Your task to perform on an android device: Do I have any events tomorrow? Image 0: 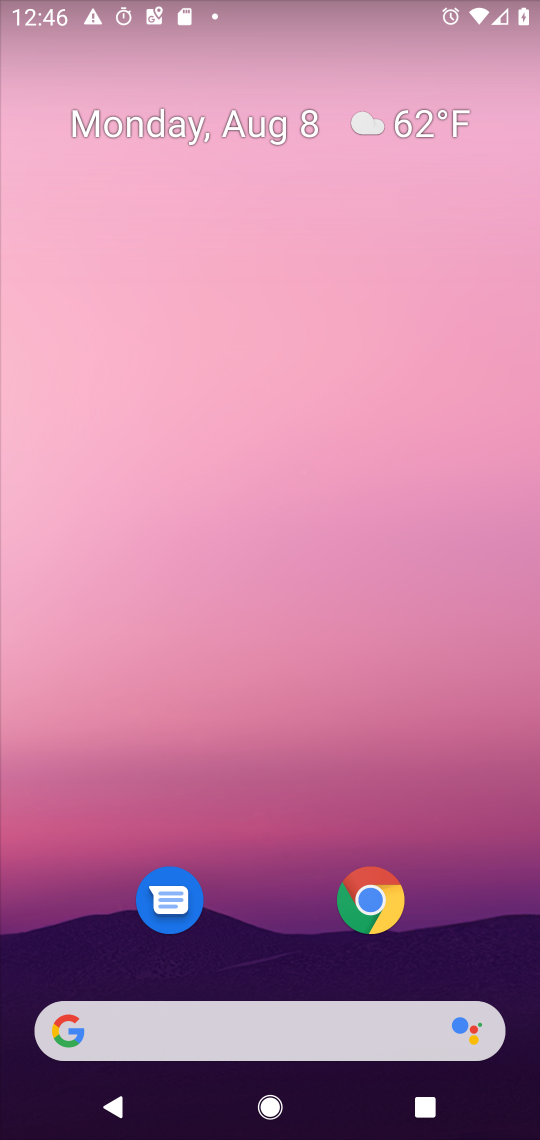
Step 0: press home button
Your task to perform on an android device: Do I have any events tomorrow? Image 1: 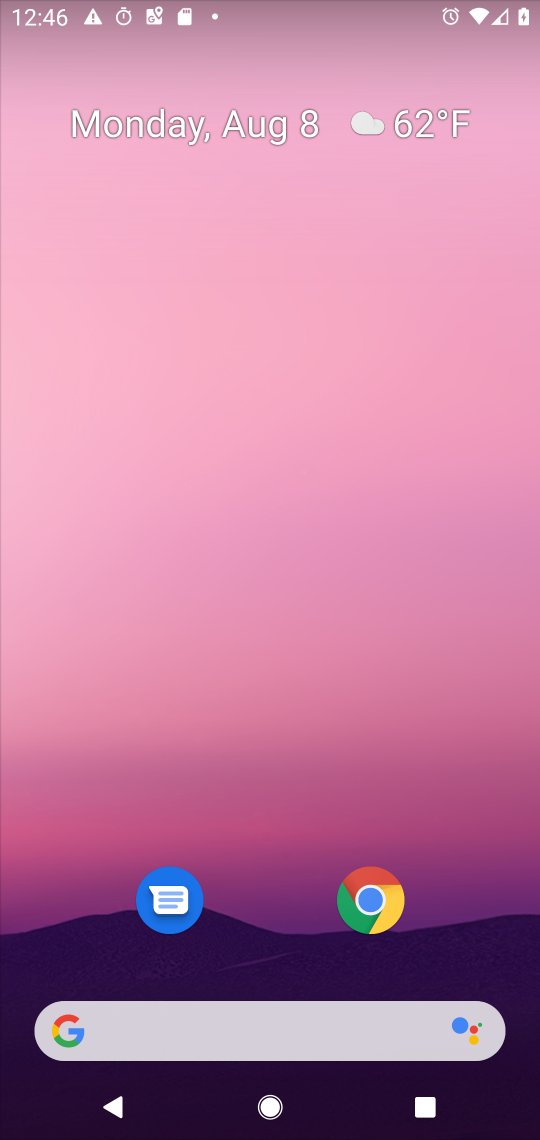
Step 1: drag from (275, 966) to (333, 96)
Your task to perform on an android device: Do I have any events tomorrow? Image 2: 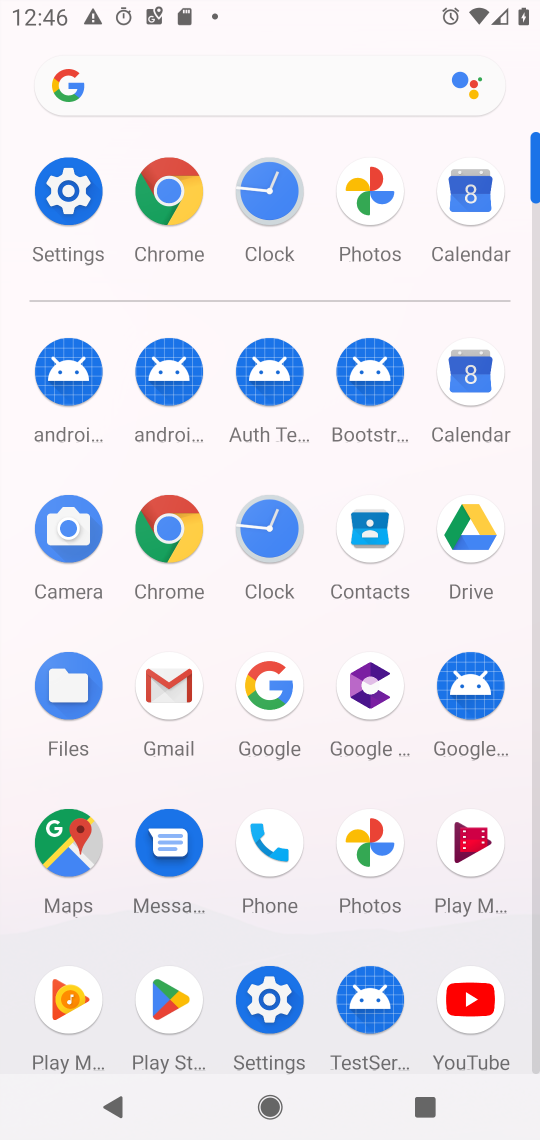
Step 2: click (468, 362)
Your task to perform on an android device: Do I have any events tomorrow? Image 3: 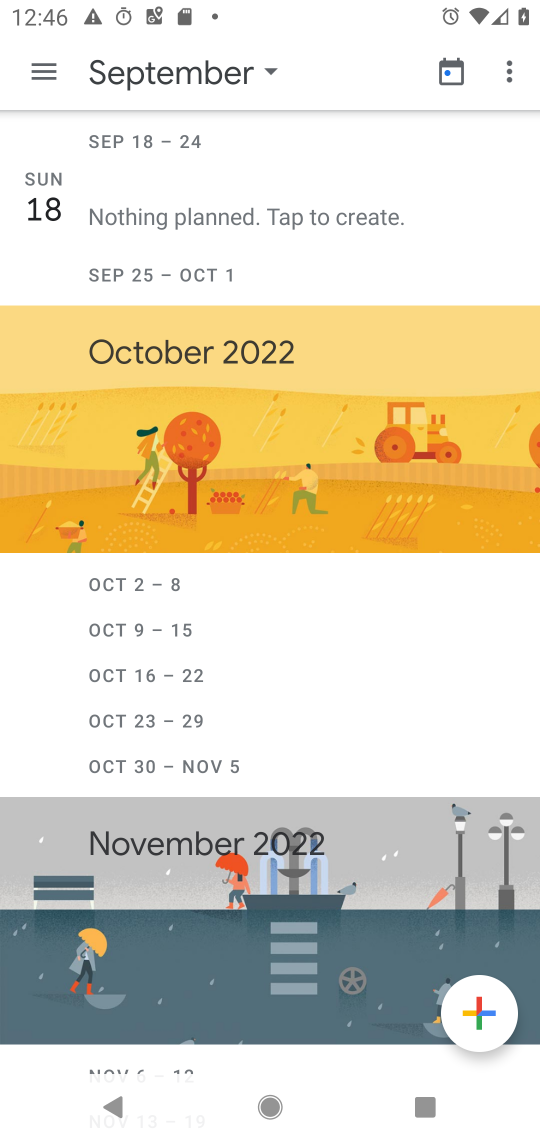
Step 3: click (259, 63)
Your task to perform on an android device: Do I have any events tomorrow? Image 4: 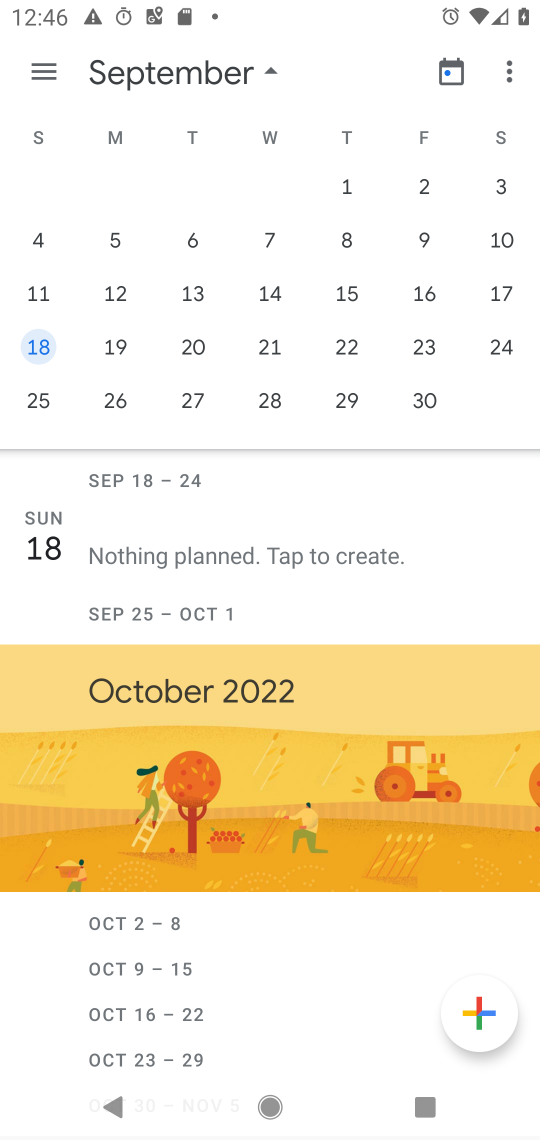
Step 4: drag from (48, 286) to (507, 281)
Your task to perform on an android device: Do I have any events tomorrow? Image 5: 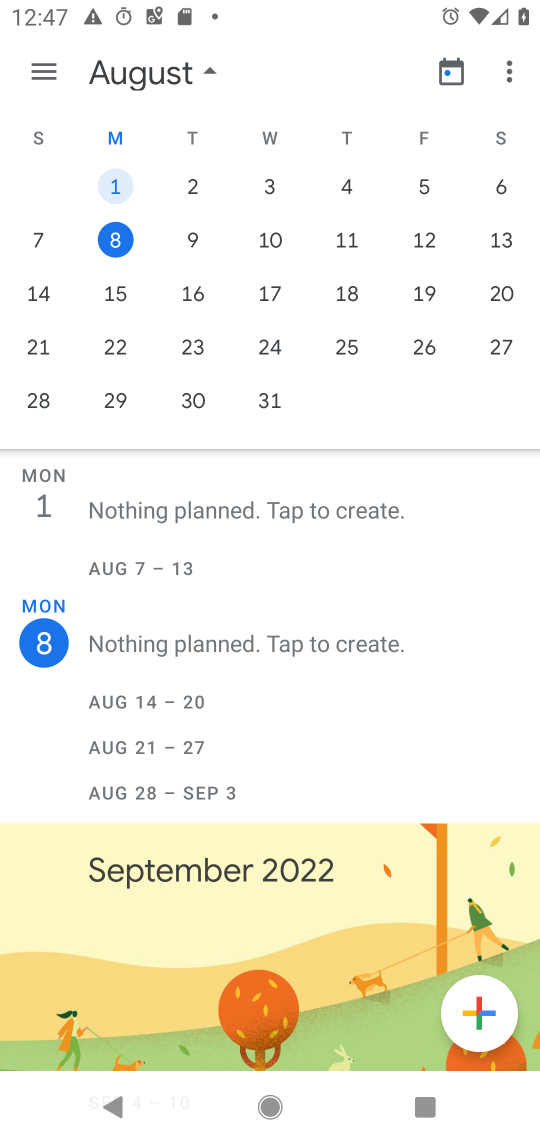
Step 5: click (34, 61)
Your task to perform on an android device: Do I have any events tomorrow? Image 6: 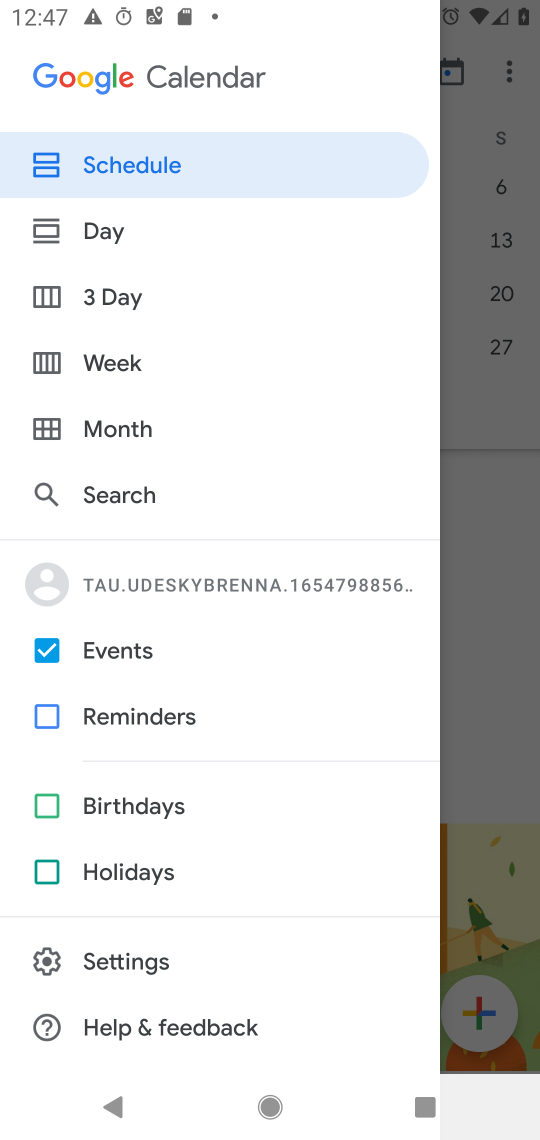
Step 6: click (99, 168)
Your task to perform on an android device: Do I have any events tomorrow? Image 7: 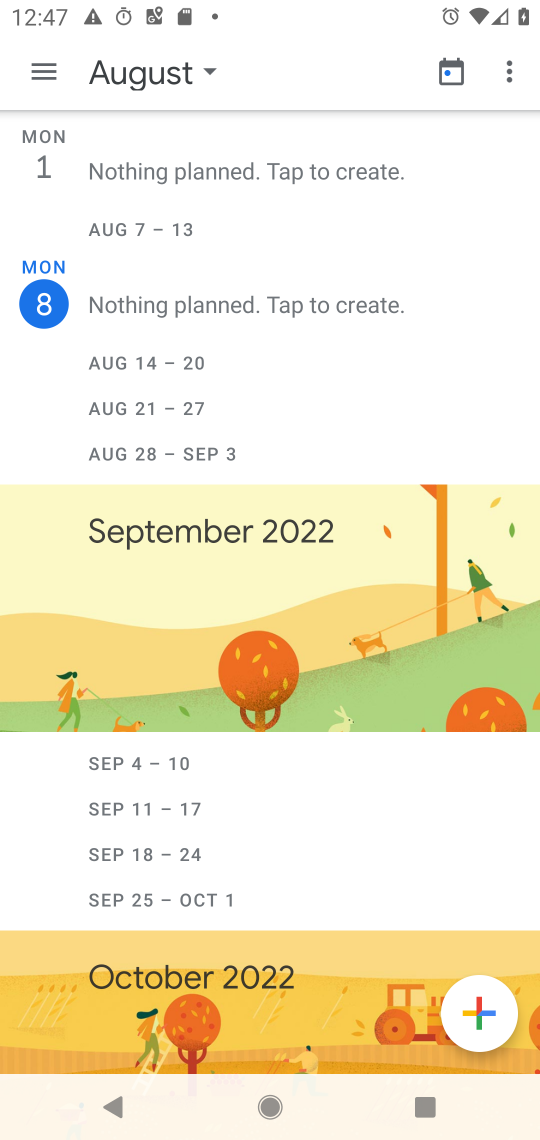
Step 7: click (68, 304)
Your task to perform on an android device: Do I have any events tomorrow? Image 8: 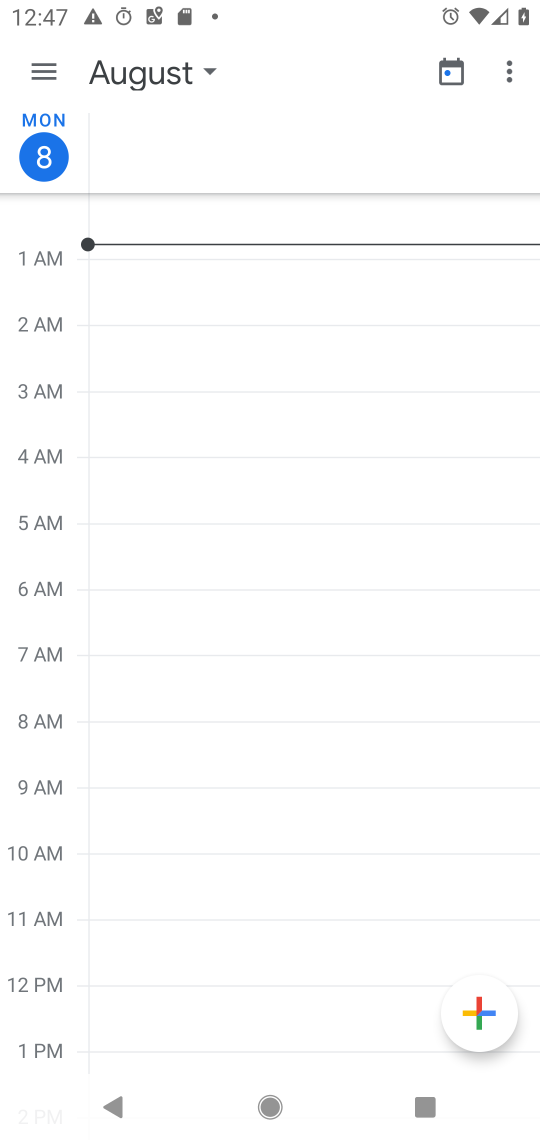
Step 8: click (193, 68)
Your task to perform on an android device: Do I have any events tomorrow? Image 9: 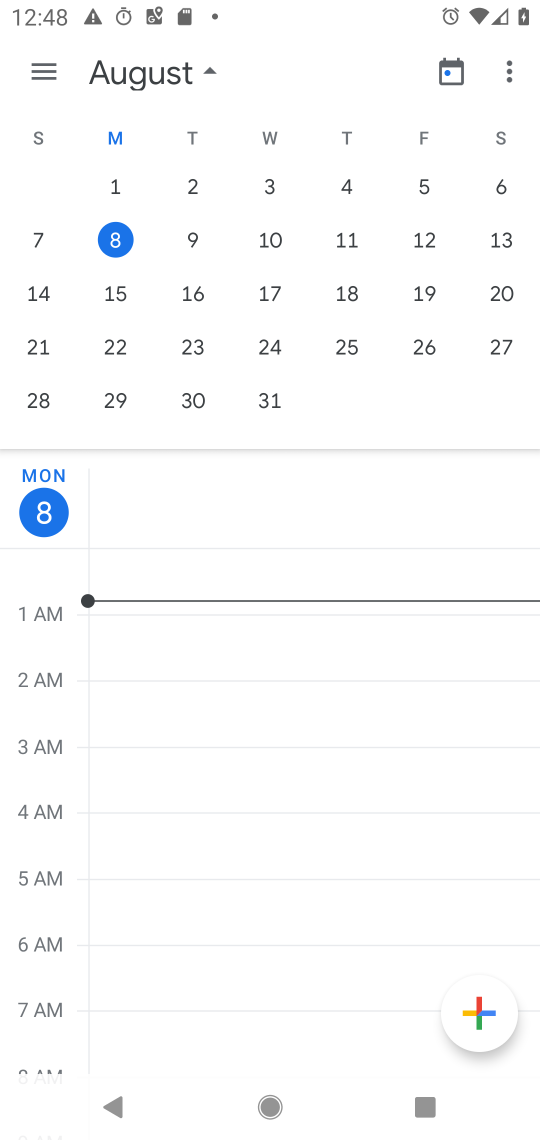
Step 9: click (195, 243)
Your task to perform on an android device: Do I have any events tomorrow? Image 10: 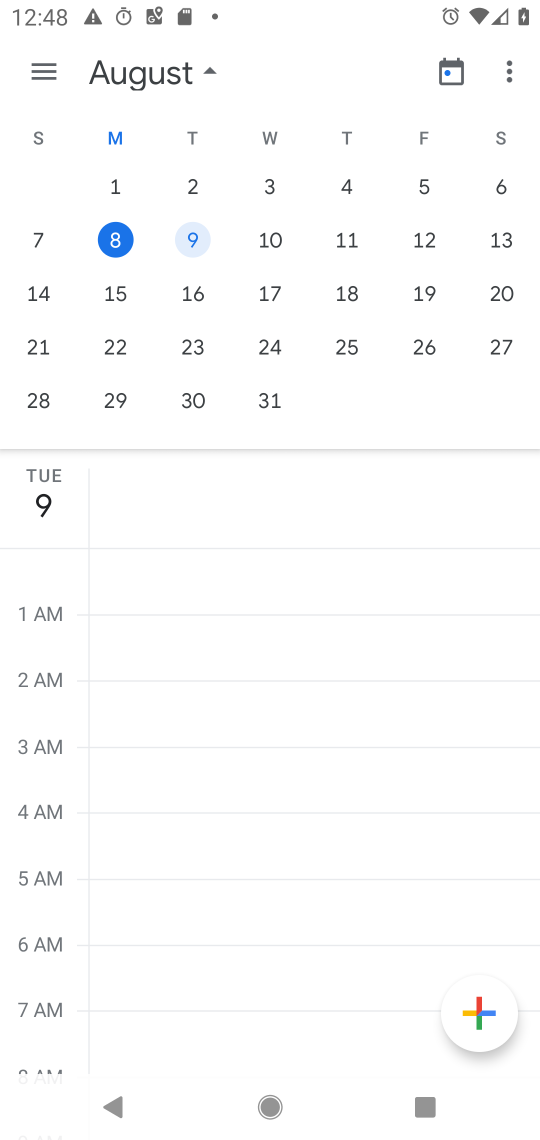
Step 10: click (207, 70)
Your task to perform on an android device: Do I have any events tomorrow? Image 11: 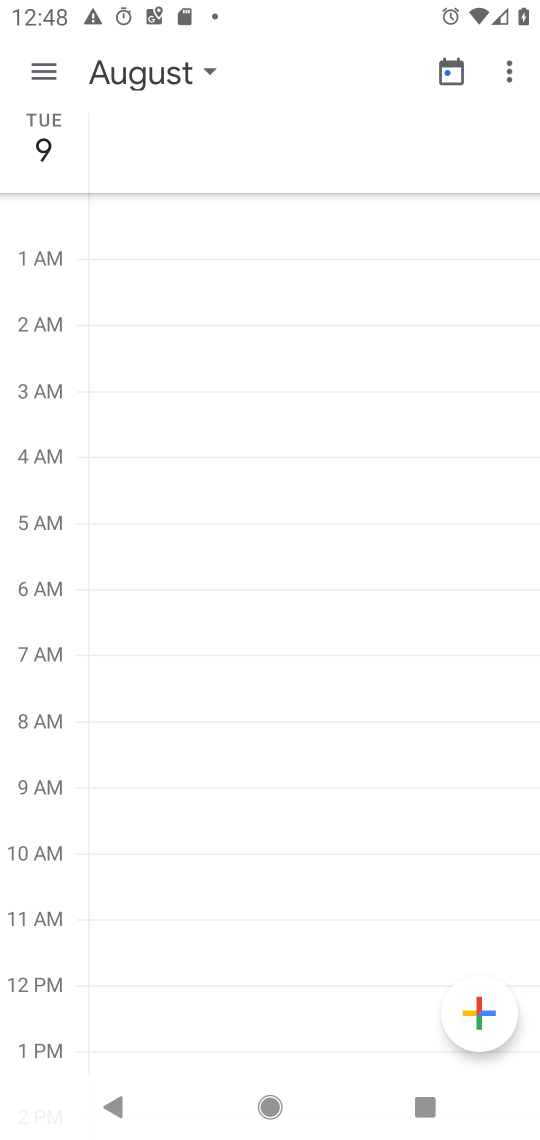
Step 11: task complete